Your task to perform on an android device: turn on translation in the chrome app Image 0: 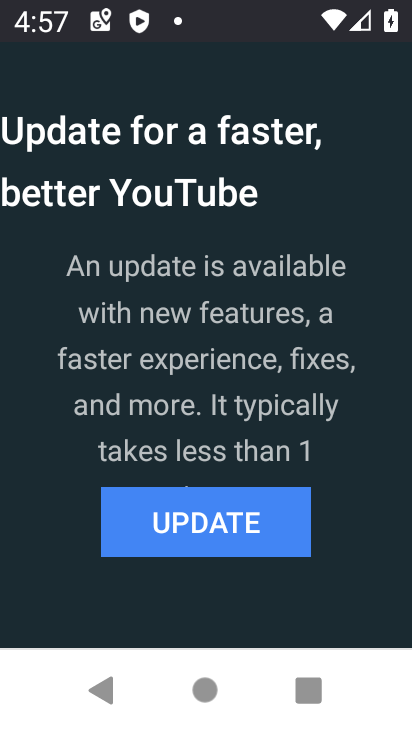
Step 0: press home button
Your task to perform on an android device: turn on translation in the chrome app Image 1: 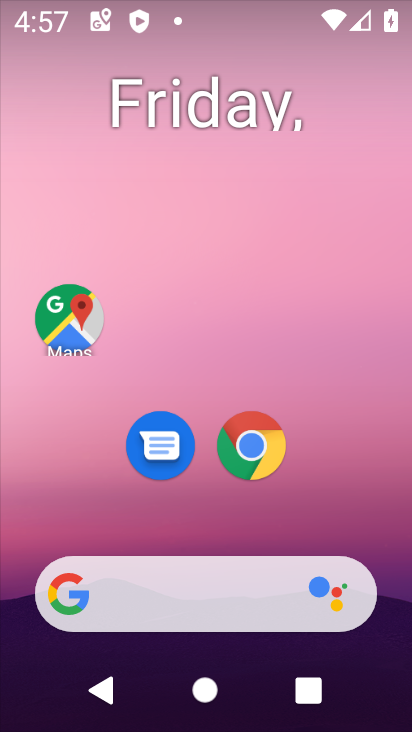
Step 1: click (277, 452)
Your task to perform on an android device: turn on translation in the chrome app Image 2: 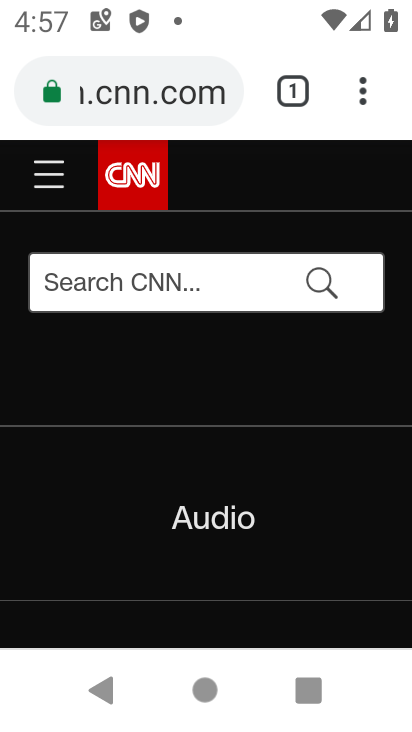
Step 2: click (361, 94)
Your task to perform on an android device: turn on translation in the chrome app Image 3: 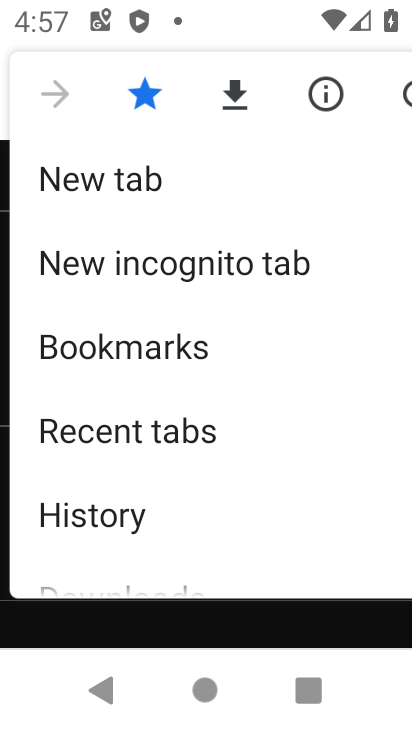
Step 3: drag from (224, 539) to (251, 231)
Your task to perform on an android device: turn on translation in the chrome app Image 4: 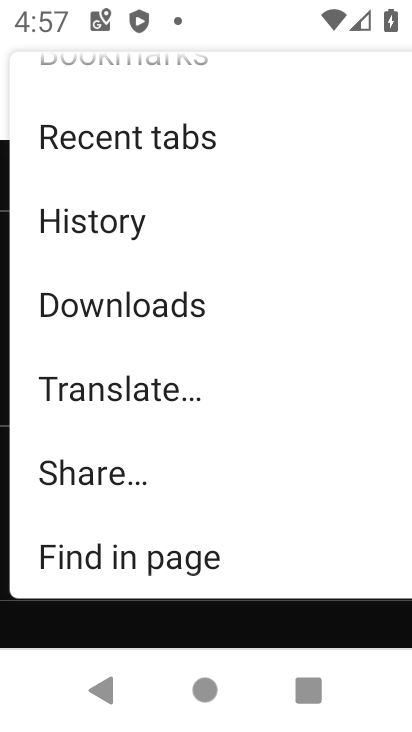
Step 4: drag from (251, 522) to (271, 224)
Your task to perform on an android device: turn on translation in the chrome app Image 5: 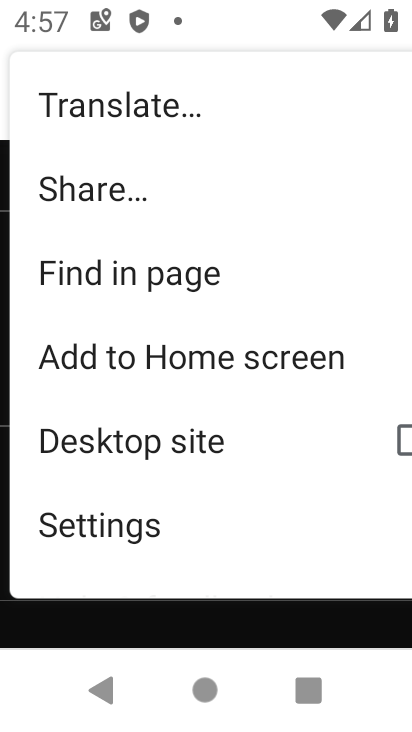
Step 5: click (213, 531)
Your task to perform on an android device: turn on translation in the chrome app Image 6: 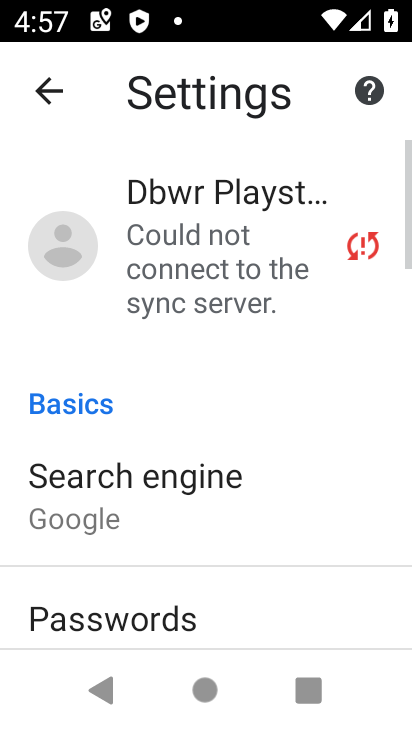
Step 6: drag from (228, 490) to (262, 152)
Your task to perform on an android device: turn on translation in the chrome app Image 7: 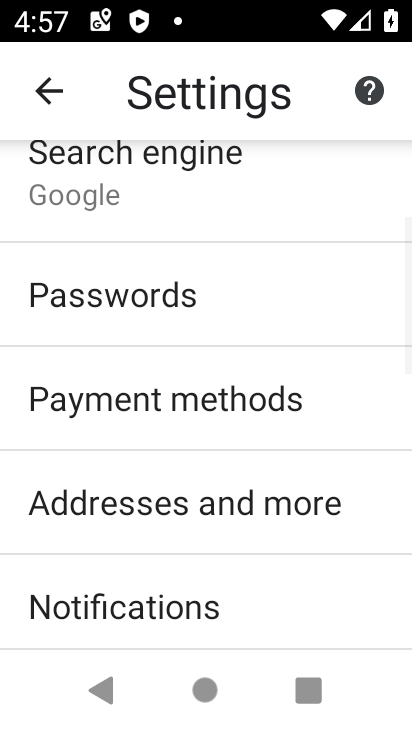
Step 7: drag from (278, 551) to (265, 212)
Your task to perform on an android device: turn on translation in the chrome app Image 8: 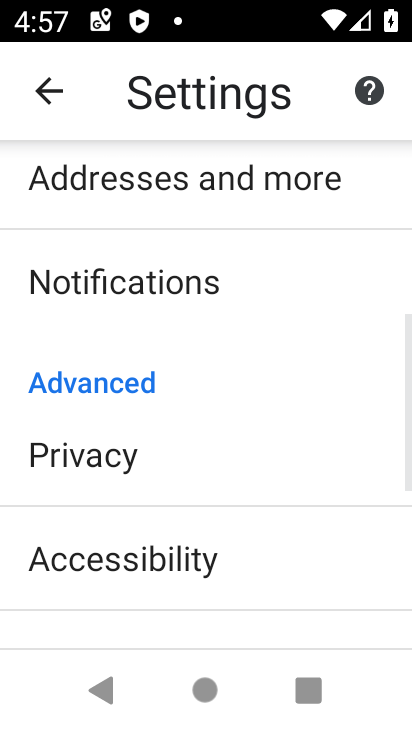
Step 8: drag from (264, 575) to (255, 223)
Your task to perform on an android device: turn on translation in the chrome app Image 9: 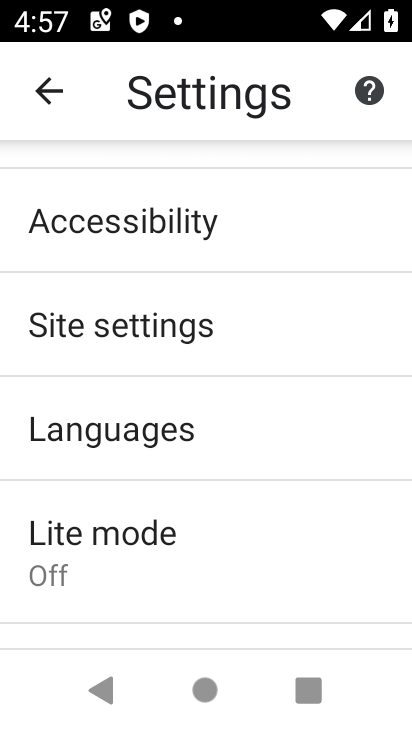
Step 9: click (241, 435)
Your task to perform on an android device: turn on translation in the chrome app Image 10: 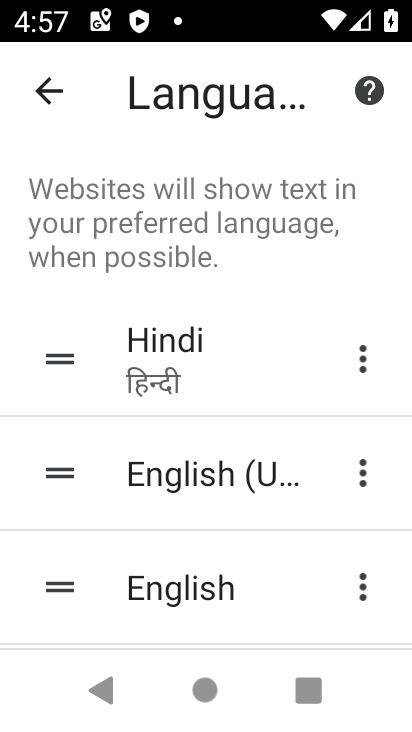
Step 10: drag from (240, 552) to (223, 262)
Your task to perform on an android device: turn on translation in the chrome app Image 11: 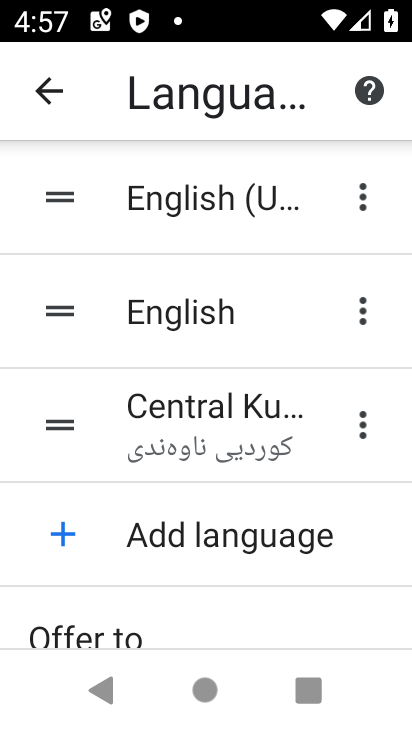
Step 11: drag from (249, 567) to (239, 244)
Your task to perform on an android device: turn on translation in the chrome app Image 12: 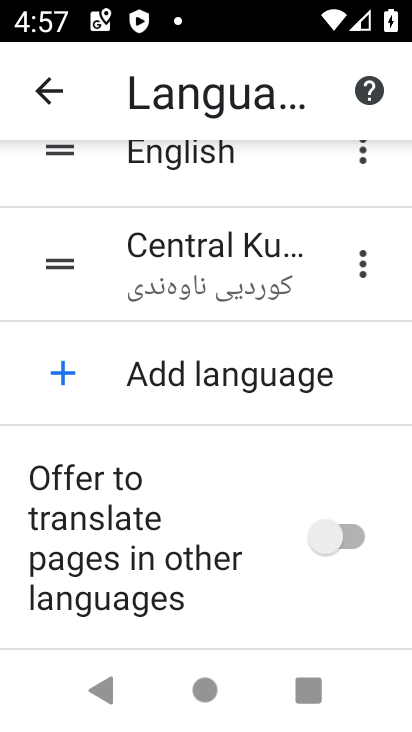
Step 12: click (313, 504)
Your task to perform on an android device: turn on translation in the chrome app Image 13: 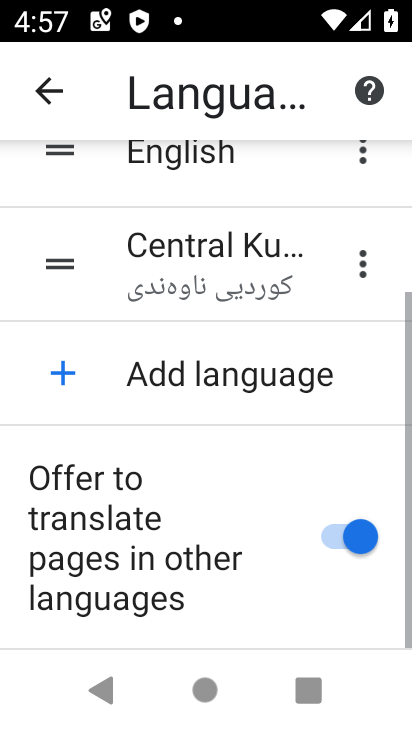
Step 13: task complete